Your task to perform on an android device: set an alarm Image 0: 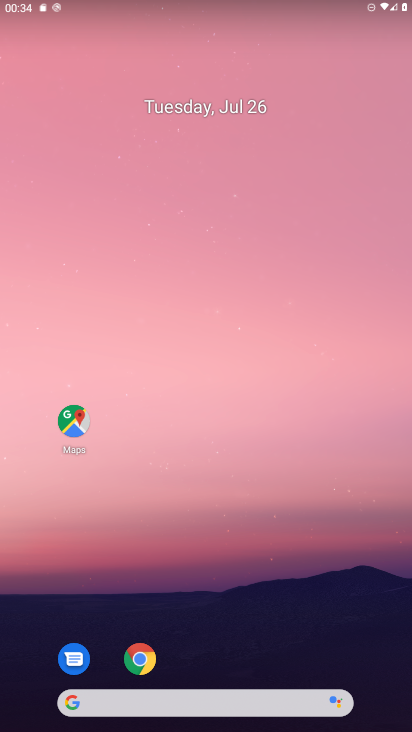
Step 0: press home button
Your task to perform on an android device: set an alarm Image 1: 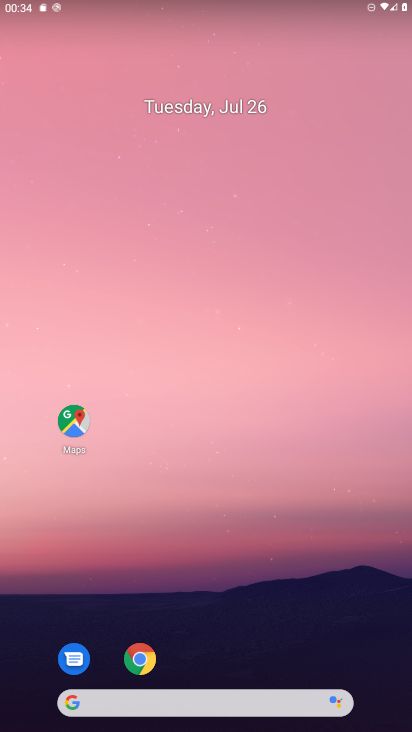
Step 1: drag from (369, 626) to (251, 80)
Your task to perform on an android device: set an alarm Image 2: 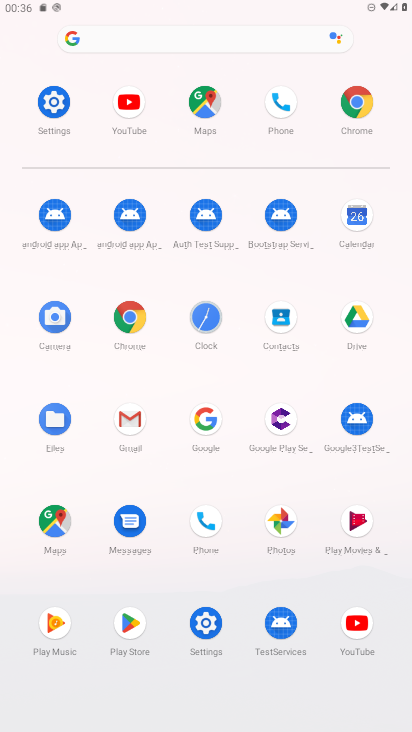
Step 2: click (203, 328)
Your task to perform on an android device: set an alarm Image 3: 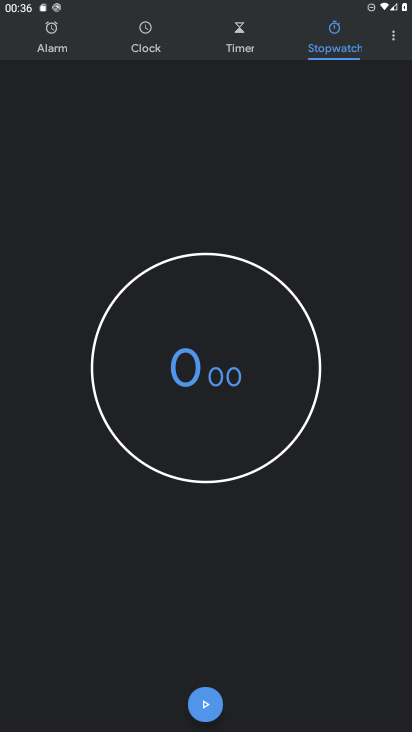
Step 3: click (74, 41)
Your task to perform on an android device: set an alarm Image 4: 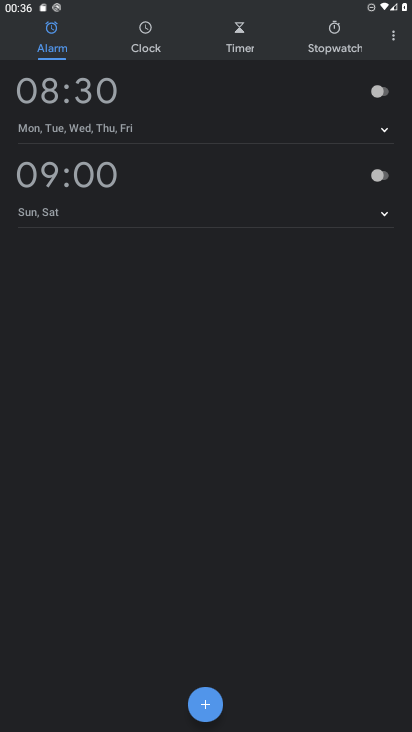
Step 4: click (208, 709)
Your task to perform on an android device: set an alarm Image 5: 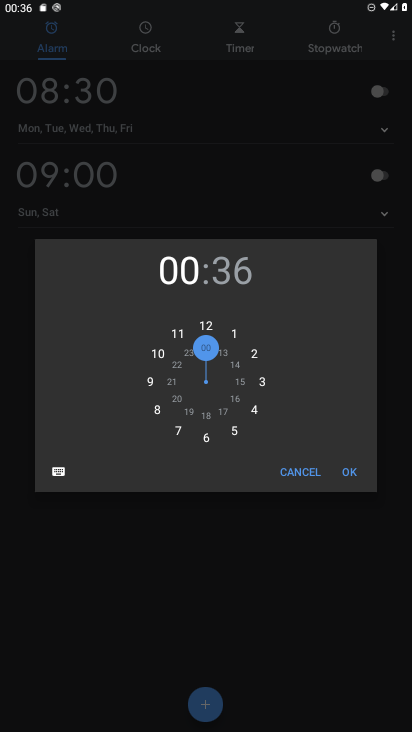
Step 5: click (367, 468)
Your task to perform on an android device: set an alarm Image 6: 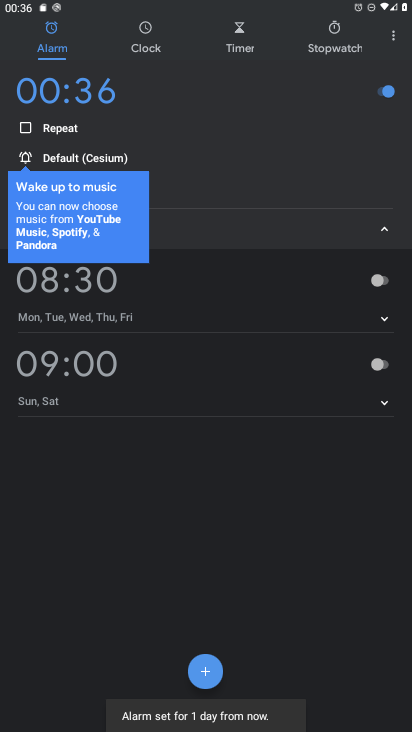
Step 6: task complete